Your task to perform on an android device: turn off javascript in the chrome app Image 0: 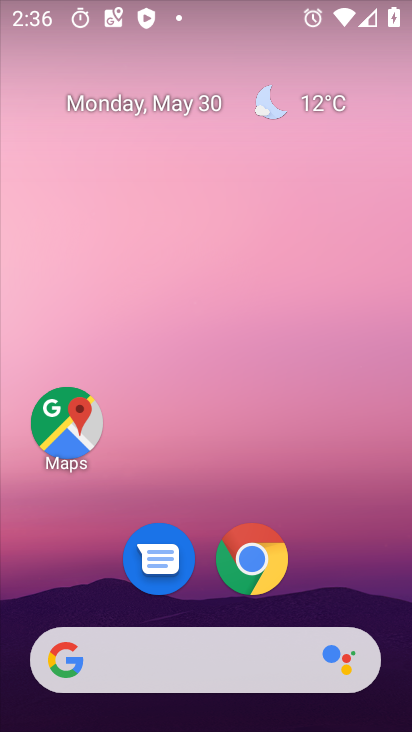
Step 0: click (251, 549)
Your task to perform on an android device: turn off javascript in the chrome app Image 1: 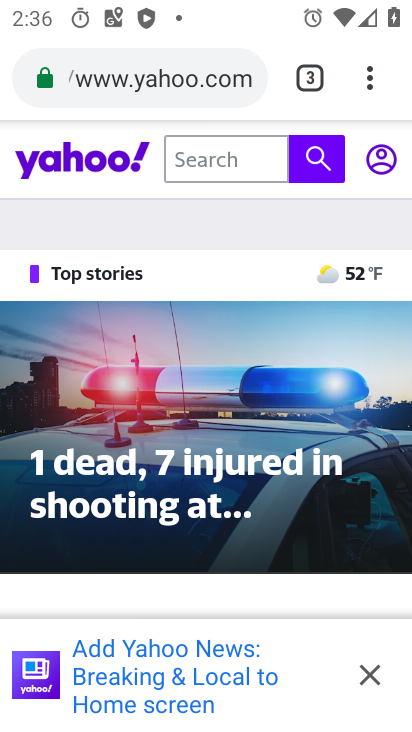
Step 1: drag from (378, 66) to (167, 604)
Your task to perform on an android device: turn off javascript in the chrome app Image 2: 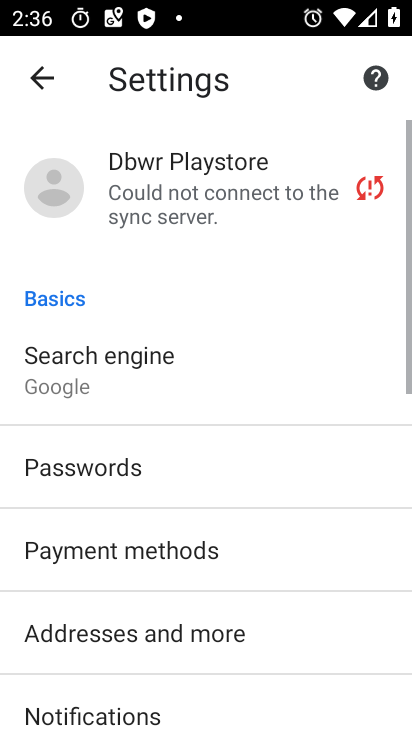
Step 2: drag from (196, 652) to (298, 124)
Your task to perform on an android device: turn off javascript in the chrome app Image 3: 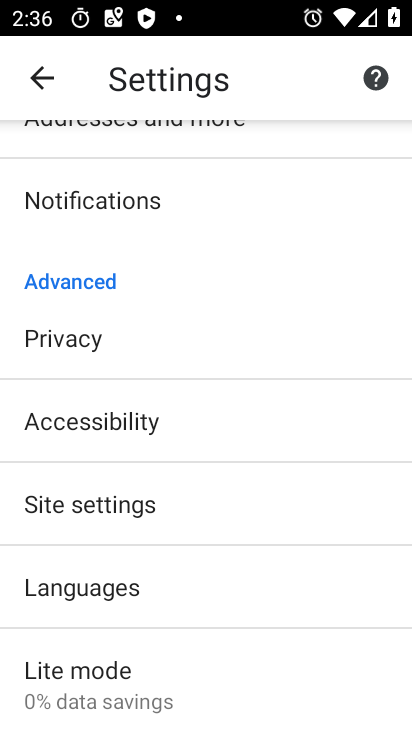
Step 3: click (161, 505)
Your task to perform on an android device: turn off javascript in the chrome app Image 4: 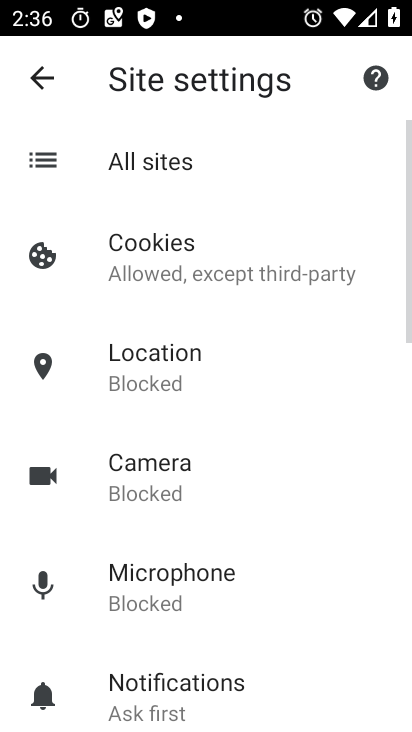
Step 4: drag from (254, 663) to (311, 219)
Your task to perform on an android device: turn off javascript in the chrome app Image 5: 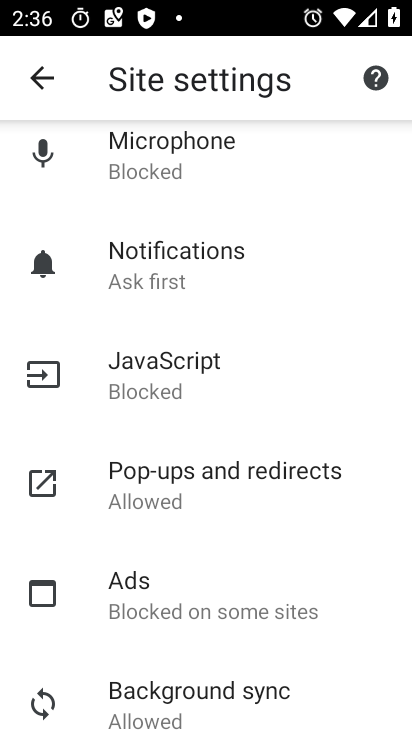
Step 5: click (136, 368)
Your task to perform on an android device: turn off javascript in the chrome app Image 6: 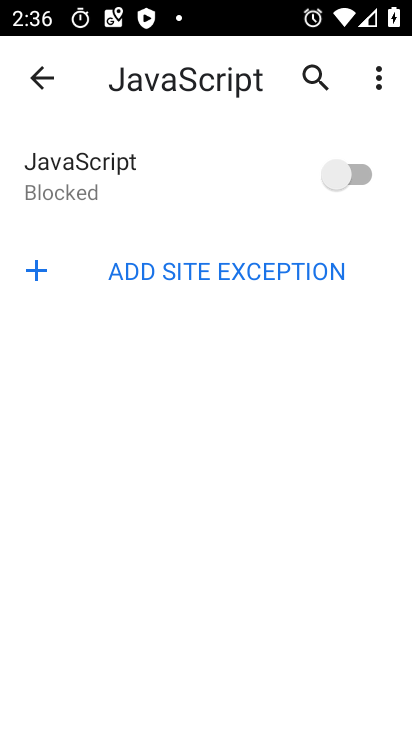
Step 6: task complete